Your task to perform on an android device: add a label to a message in the gmail app Image 0: 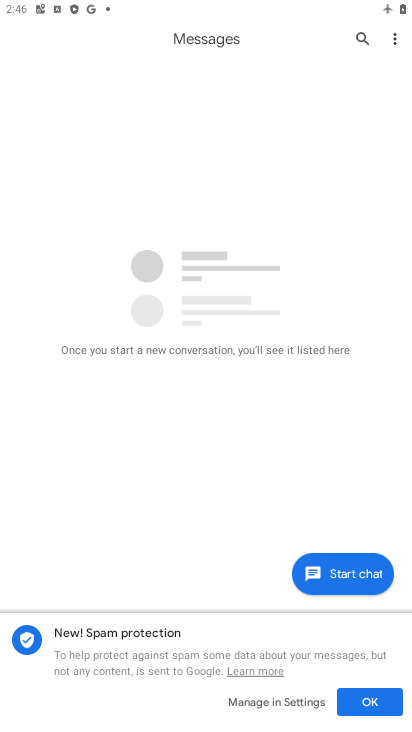
Step 0: press home button
Your task to perform on an android device: add a label to a message in the gmail app Image 1: 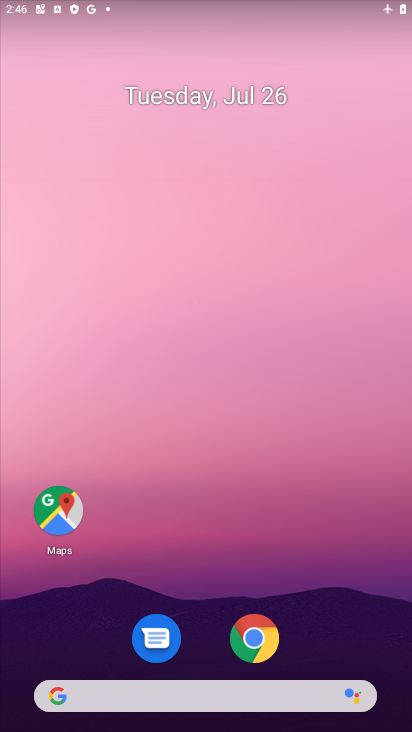
Step 1: drag from (144, 460) to (138, 121)
Your task to perform on an android device: add a label to a message in the gmail app Image 2: 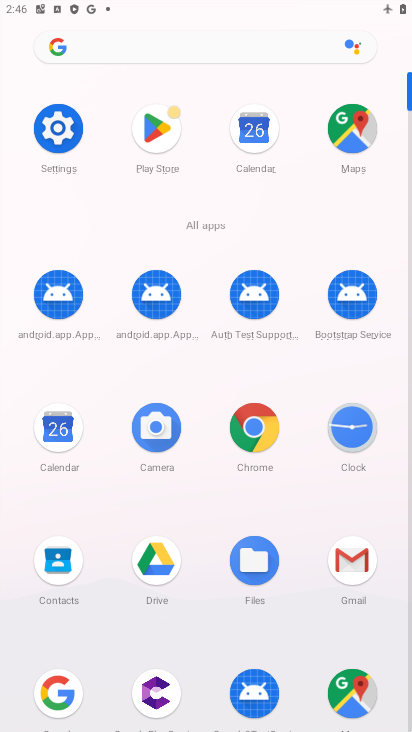
Step 2: click (345, 566)
Your task to perform on an android device: add a label to a message in the gmail app Image 3: 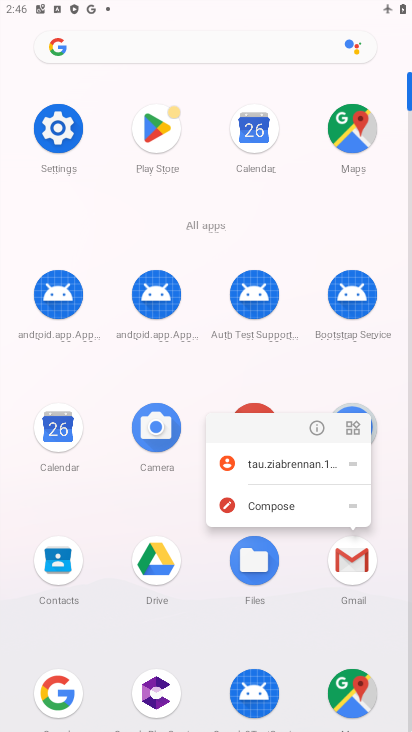
Step 3: click (345, 566)
Your task to perform on an android device: add a label to a message in the gmail app Image 4: 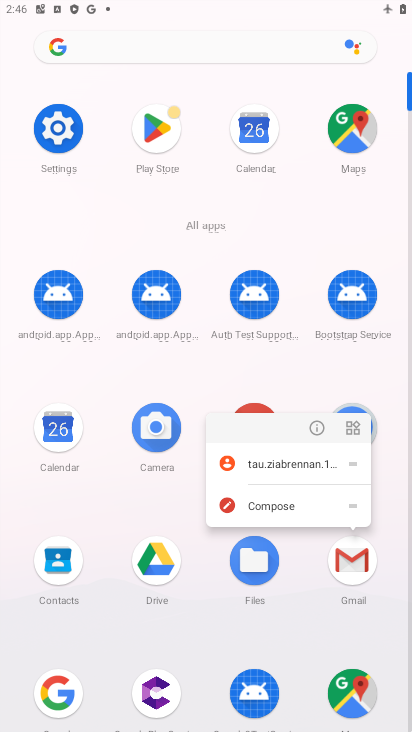
Step 4: click (345, 566)
Your task to perform on an android device: add a label to a message in the gmail app Image 5: 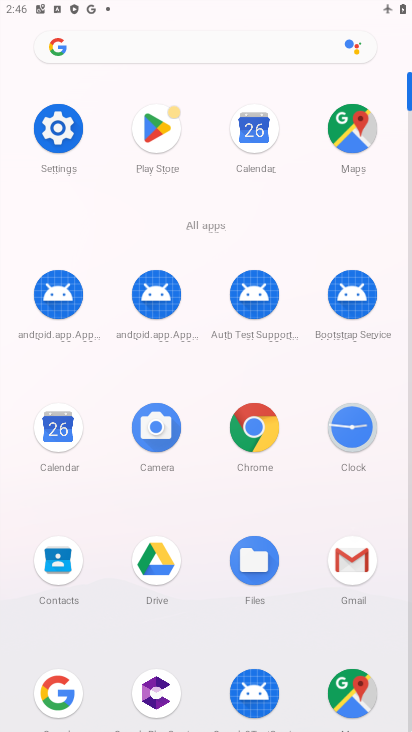
Step 5: click (345, 566)
Your task to perform on an android device: add a label to a message in the gmail app Image 6: 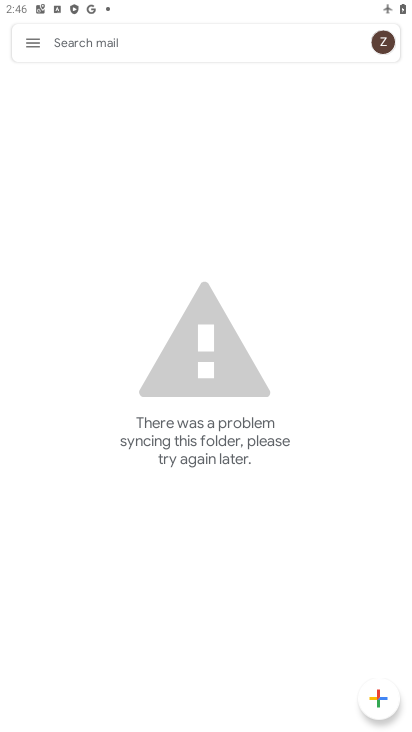
Step 6: task complete